Your task to perform on an android device: Open settings on Google Maps Image 0: 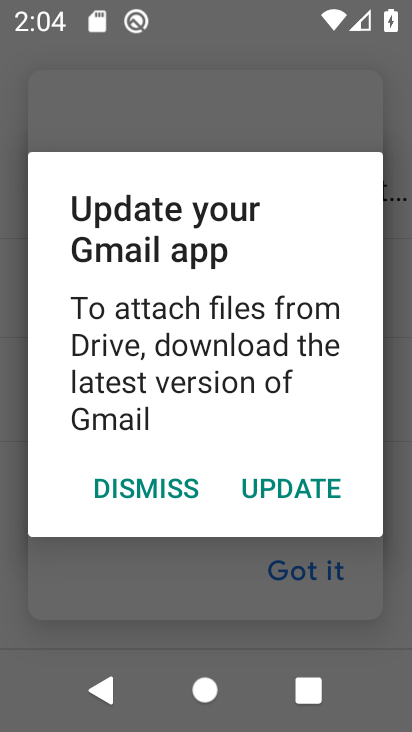
Step 0: press home button
Your task to perform on an android device: Open settings on Google Maps Image 1: 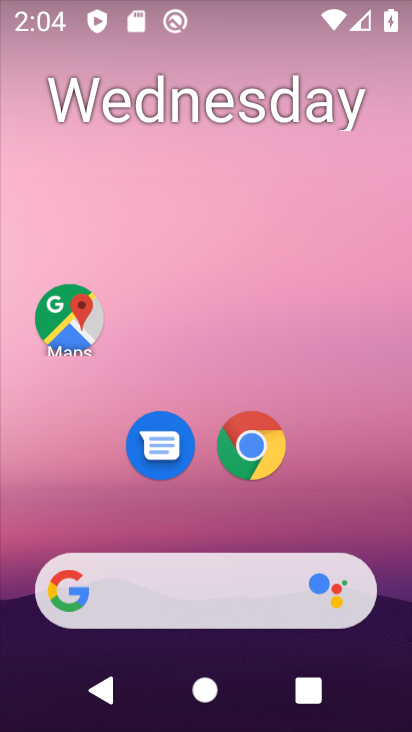
Step 1: drag from (217, 497) to (223, 22)
Your task to perform on an android device: Open settings on Google Maps Image 2: 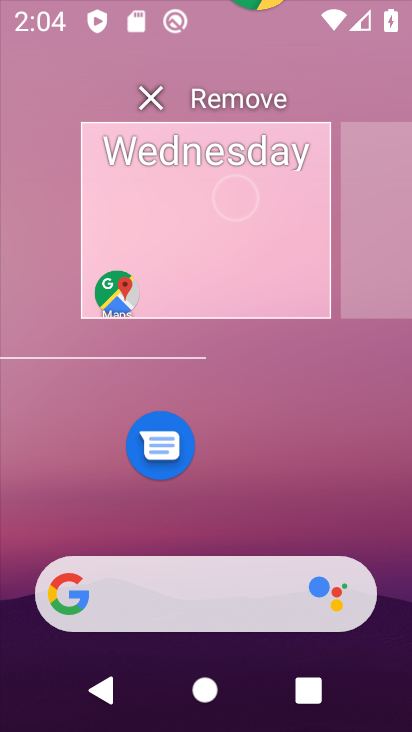
Step 2: drag from (257, 537) to (243, 33)
Your task to perform on an android device: Open settings on Google Maps Image 3: 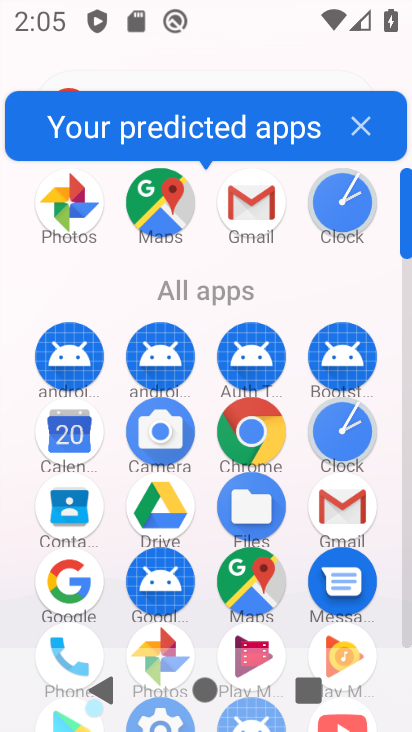
Step 3: drag from (201, 617) to (205, 450)
Your task to perform on an android device: Open settings on Google Maps Image 4: 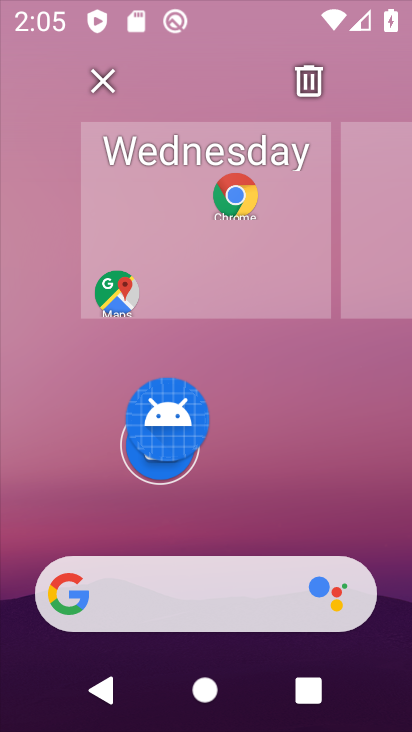
Step 4: drag from (238, 525) to (232, 98)
Your task to perform on an android device: Open settings on Google Maps Image 5: 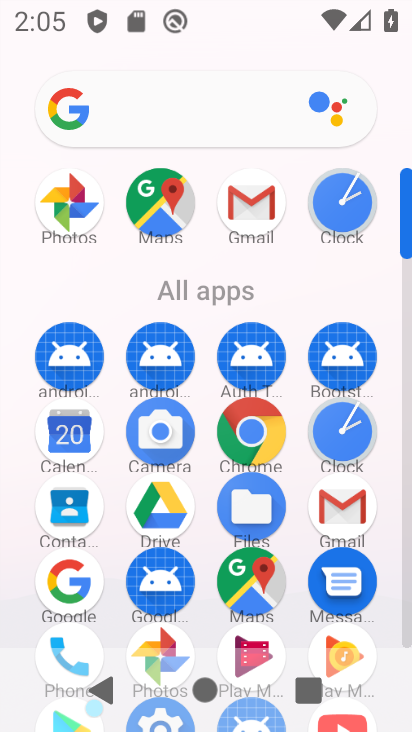
Step 5: drag from (206, 619) to (205, 139)
Your task to perform on an android device: Open settings on Google Maps Image 6: 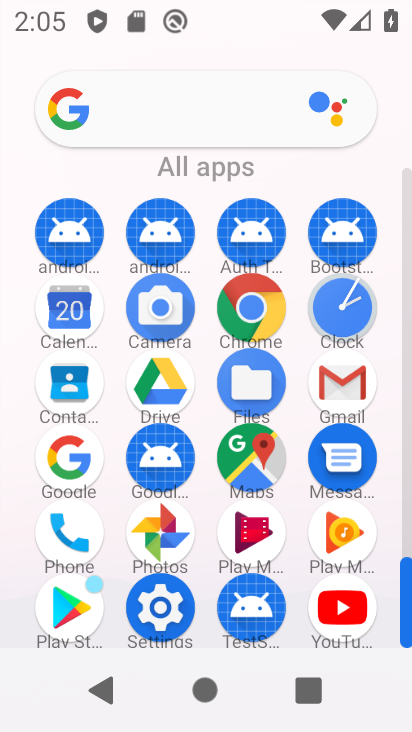
Step 6: click (238, 457)
Your task to perform on an android device: Open settings on Google Maps Image 7: 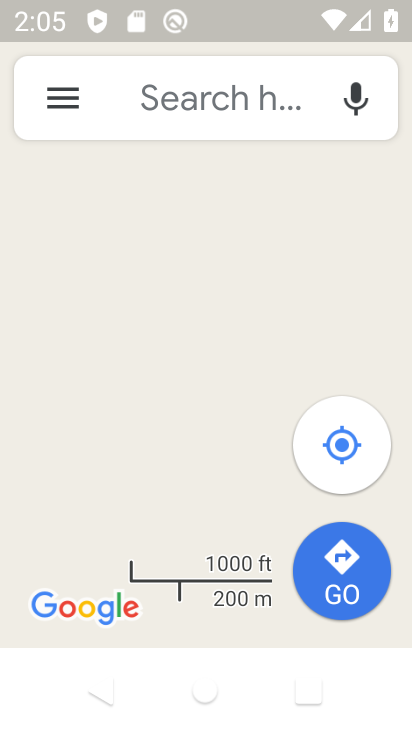
Step 7: click (64, 90)
Your task to perform on an android device: Open settings on Google Maps Image 8: 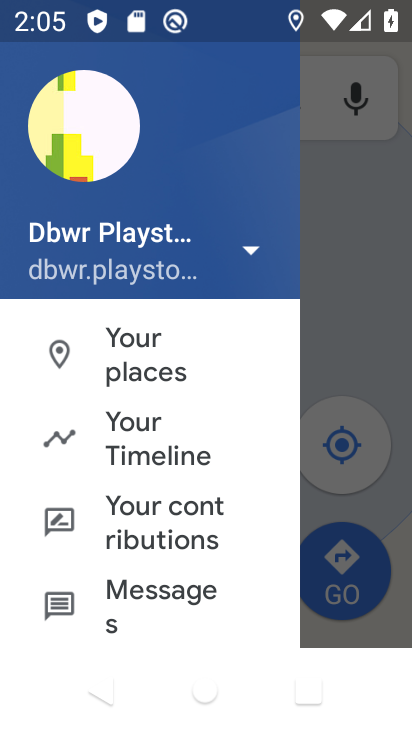
Step 8: drag from (184, 557) to (157, 215)
Your task to perform on an android device: Open settings on Google Maps Image 9: 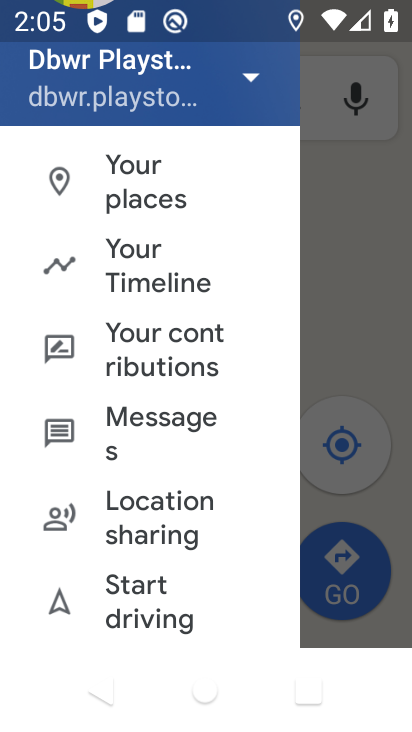
Step 9: drag from (88, 557) to (69, 218)
Your task to perform on an android device: Open settings on Google Maps Image 10: 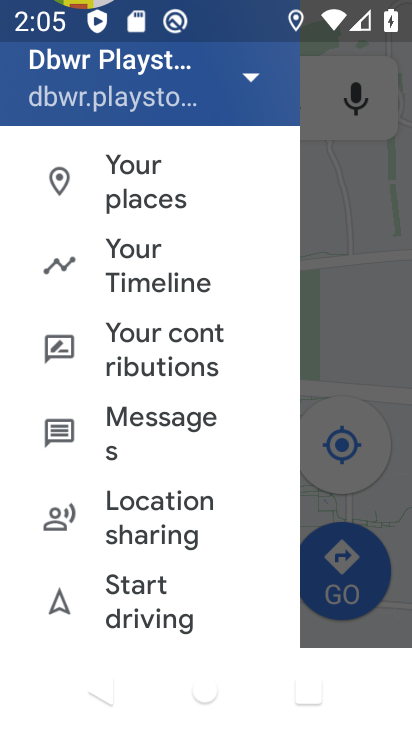
Step 10: drag from (132, 548) to (107, 181)
Your task to perform on an android device: Open settings on Google Maps Image 11: 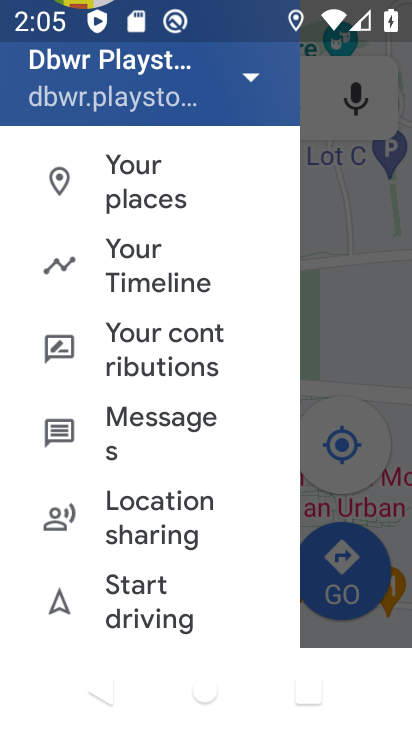
Step 11: drag from (135, 475) to (123, 153)
Your task to perform on an android device: Open settings on Google Maps Image 12: 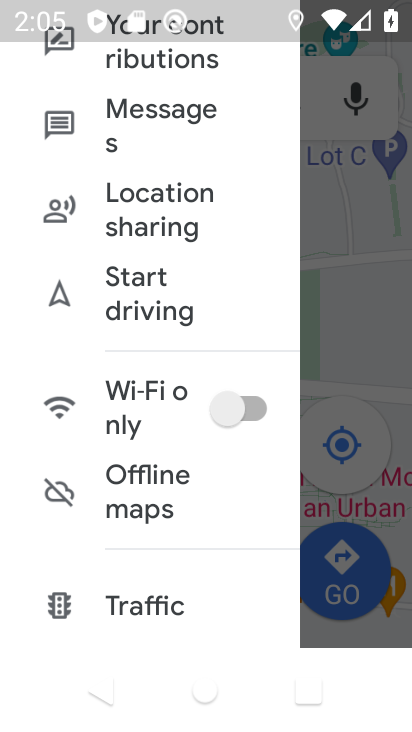
Step 12: drag from (135, 557) to (126, 156)
Your task to perform on an android device: Open settings on Google Maps Image 13: 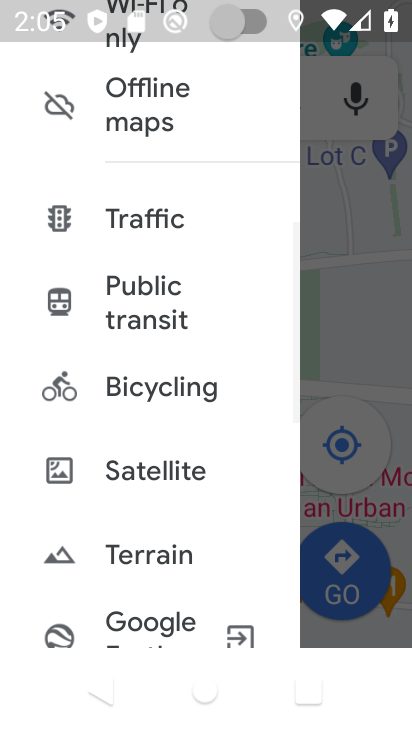
Step 13: drag from (143, 572) to (126, 139)
Your task to perform on an android device: Open settings on Google Maps Image 14: 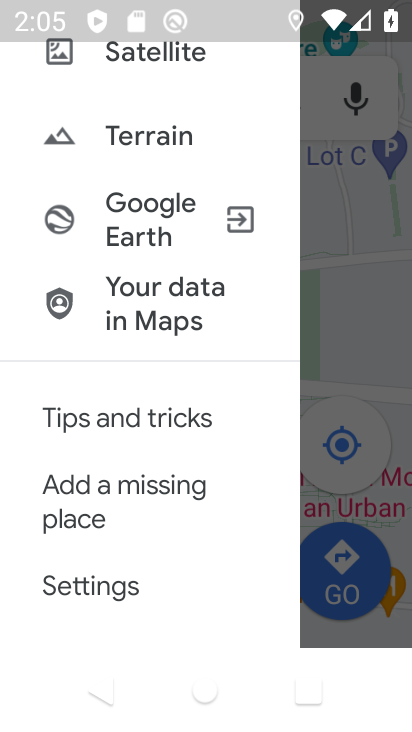
Step 14: click (116, 575)
Your task to perform on an android device: Open settings on Google Maps Image 15: 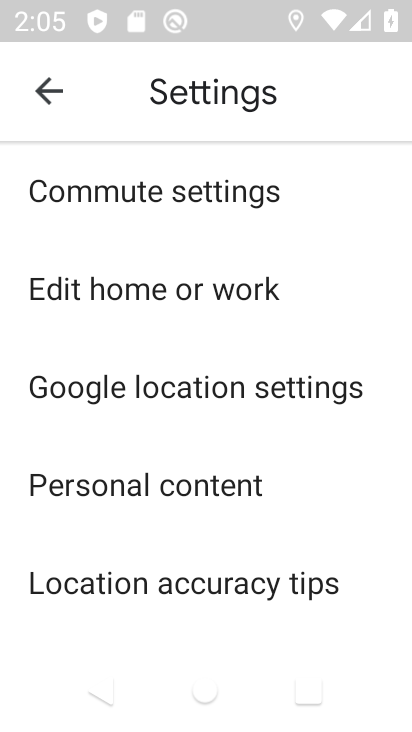
Step 15: task complete